Your task to perform on an android device: Search for Mexican restaurants on Maps Image 0: 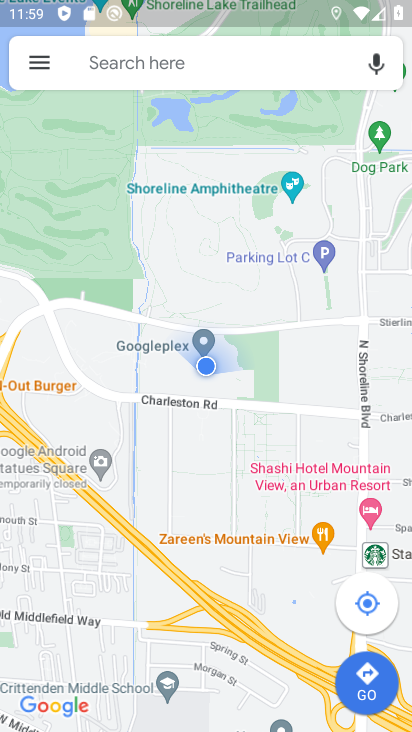
Step 0: click (156, 62)
Your task to perform on an android device: Search for Mexican restaurants on Maps Image 1: 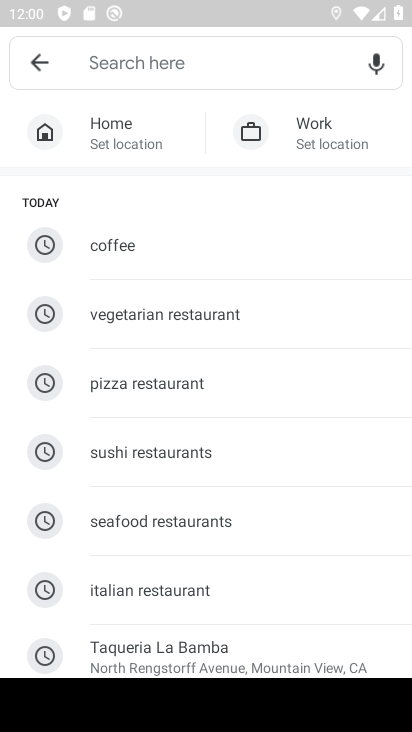
Step 1: drag from (246, 553) to (246, 278)
Your task to perform on an android device: Search for Mexican restaurants on Maps Image 2: 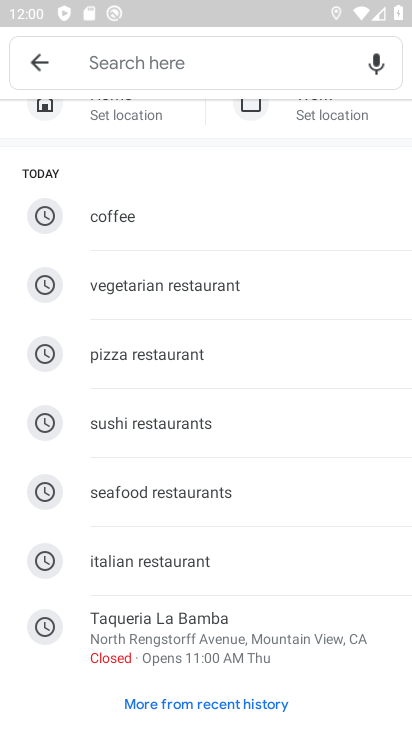
Step 2: click (195, 59)
Your task to perform on an android device: Search for Mexican restaurants on Maps Image 3: 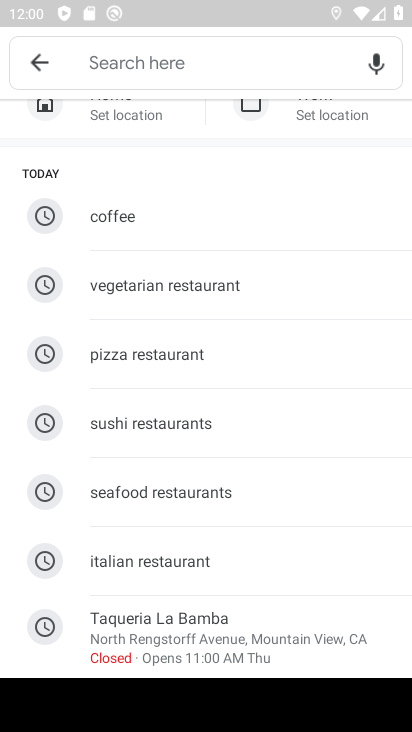
Step 3: type "mexican restaurants"
Your task to perform on an android device: Search for Mexican restaurants on Maps Image 4: 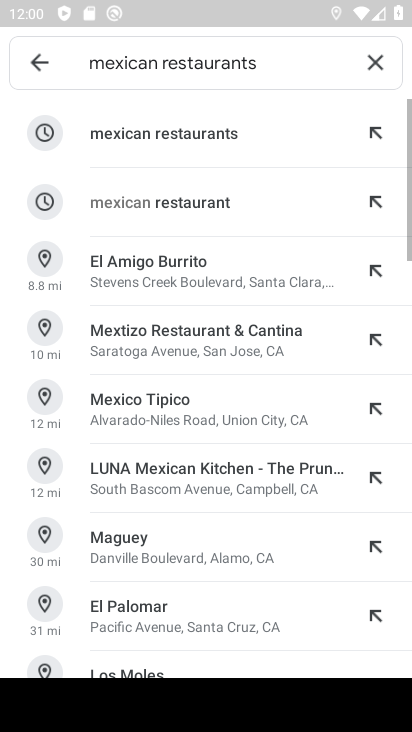
Step 4: click (181, 131)
Your task to perform on an android device: Search for Mexican restaurants on Maps Image 5: 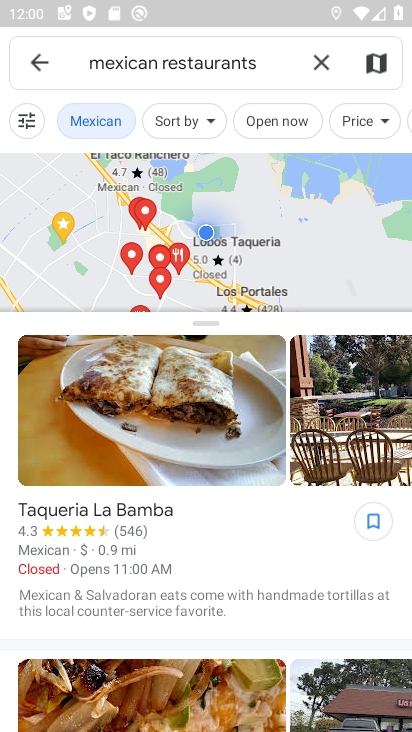
Step 5: task complete